Your task to perform on an android device: Open Yahoo.com Image 0: 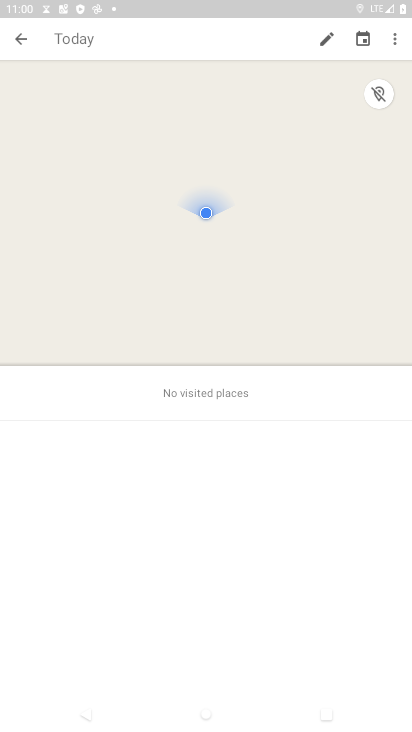
Step 0: press home button
Your task to perform on an android device: Open Yahoo.com Image 1: 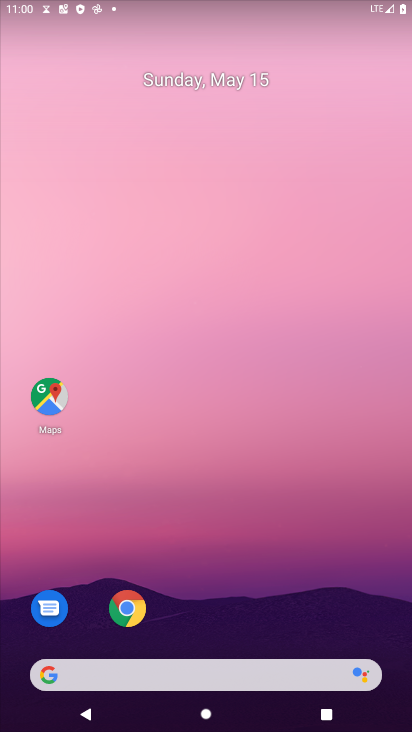
Step 1: click (143, 604)
Your task to perform on an android device: Open Yahoo.com Image 2: 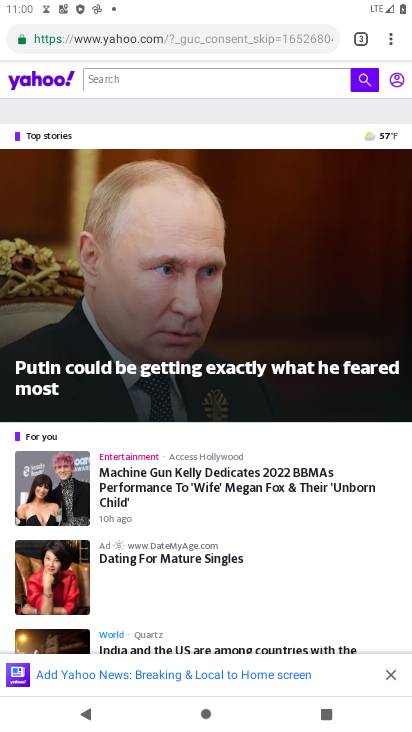
Step 2: task complete